Your task to perform on an android device: empty trash in google photos Image 0: 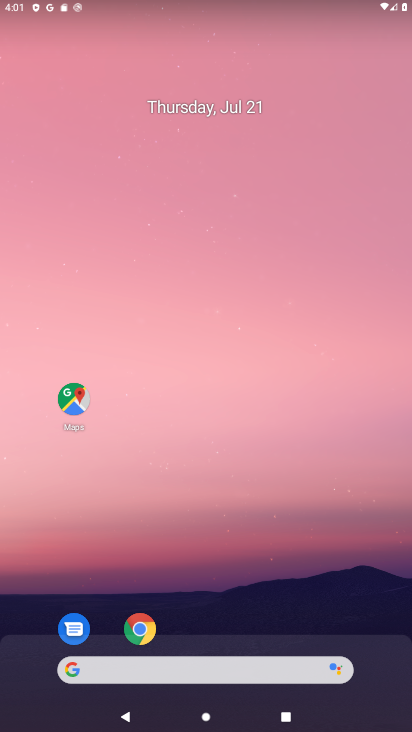
Step 0: drag from (230, 575) to (114, 24)
Your task to perform on an android device: empty trash in google photos Image 1: 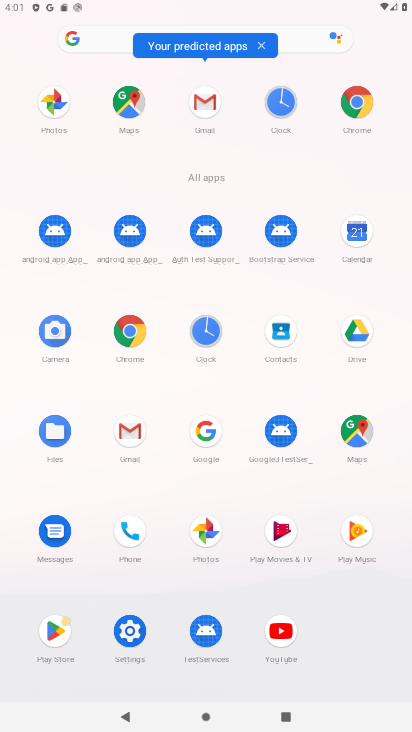
Step 1: click (52, 97)
Your task to perform on an android device: empty trash in google photos Image 2: 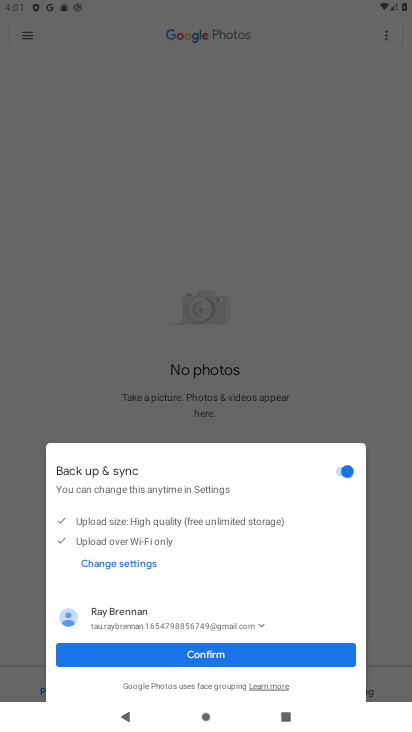
Step 2: click (208, 656)
Your task to perform on an android device: empty trash in google photos Image 3: 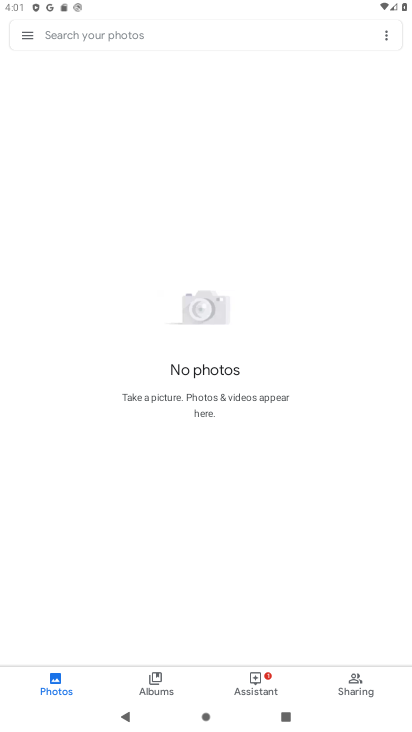
Step 3: click (29, 38)
Your task to perform on an android device: empty trash in google photos Image 4: 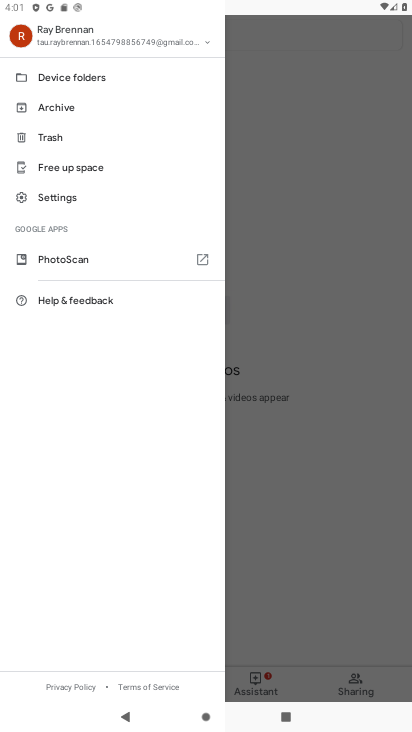
Step 4: click (47, 135)
Your task to perform on an android device: empty trash in google photos Image 5: 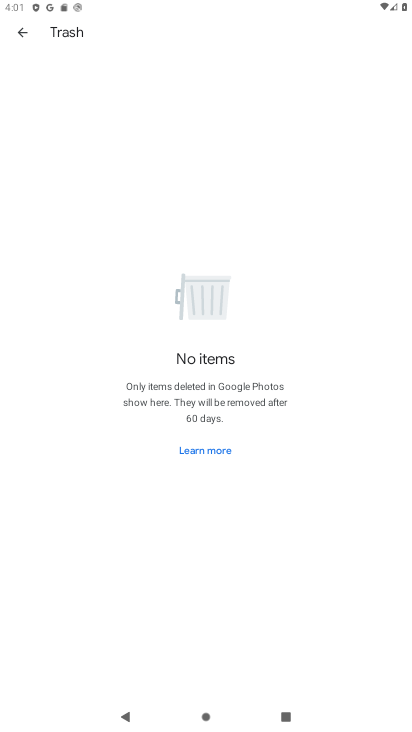
Step 5: task complete